Your task to perform on an android device: Search for "usb-a" on bestbuy.com, select the first entry, add it to the cart, then select checkout. Image 0: 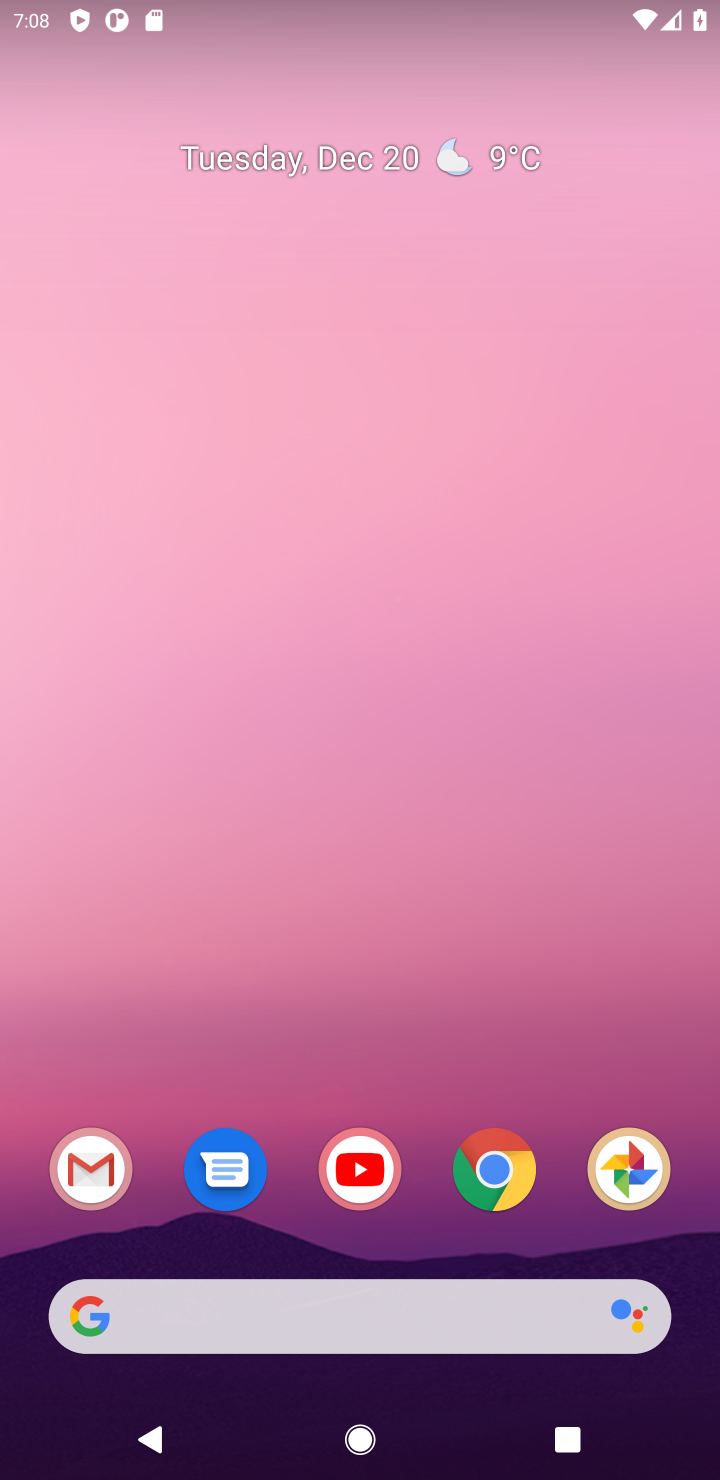
Step 0: click (469, 1186)
Your task to perform on an android device: Search for "usb-a" on bestbuy.com, select the first entry, add it to the cart, then select checkout. Image 1: 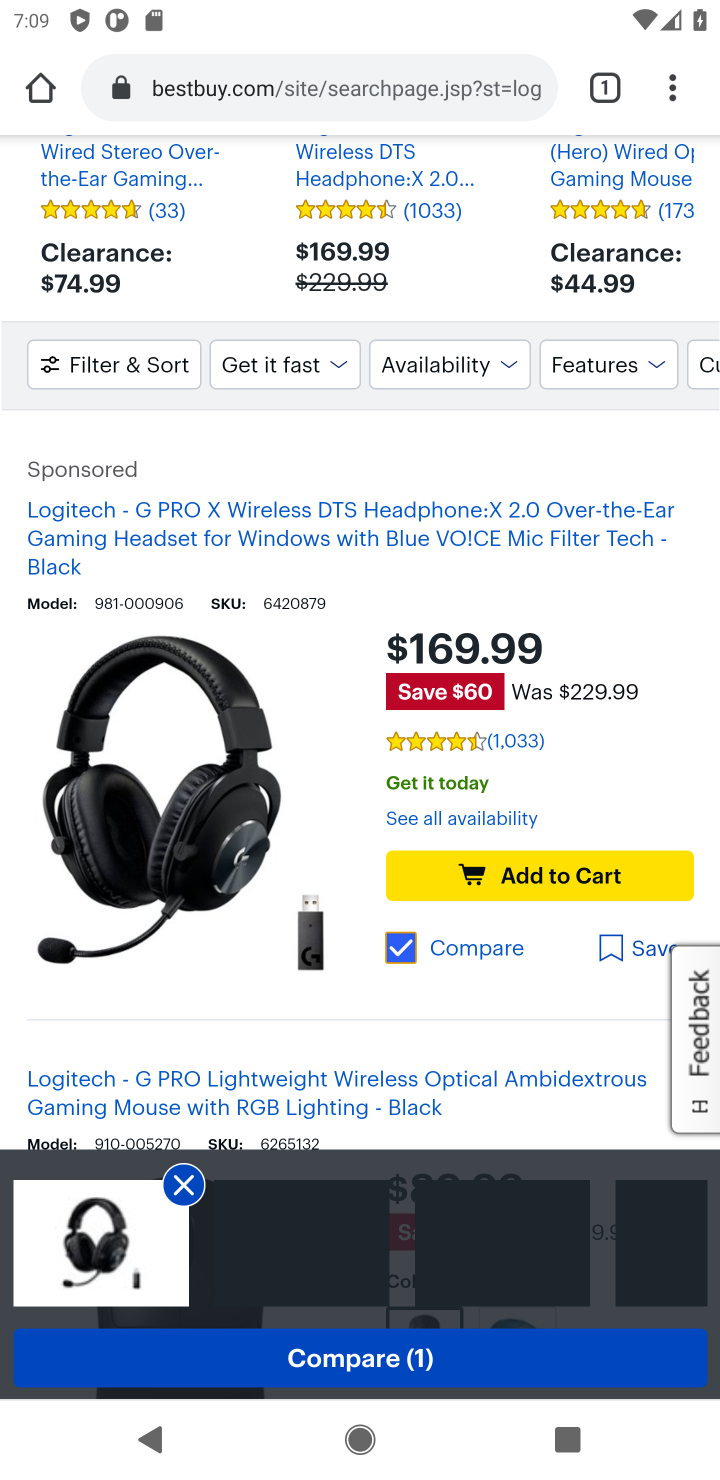
Step 1: task complete